Your task to perform on an android device: open chrome and create a bookmark for the current page Image 0: 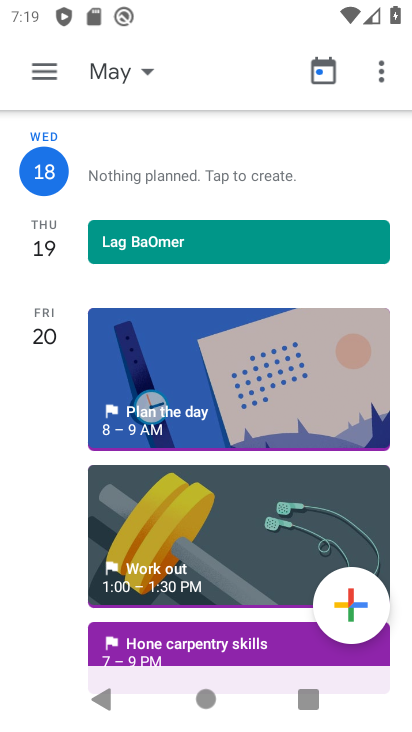
Step 0: press back button
Your task to perform on an android device: open chrome and create a bookmark for the current page Image 1: 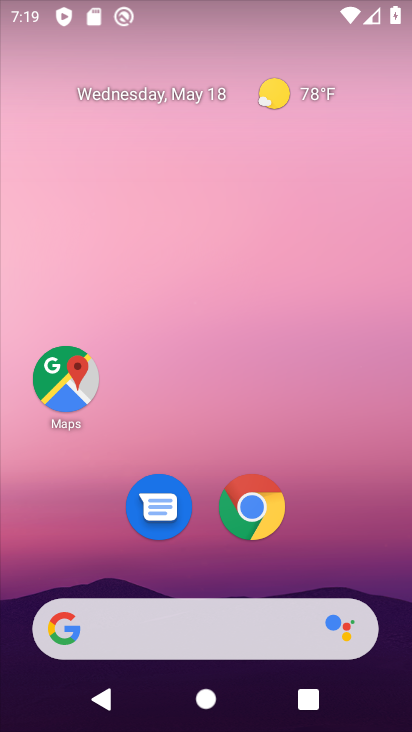
Step 1: drag from (242, 656) to (254, 166)
Your task to perform on an android device: open chrome and create a bookmark for the current page Image 2: 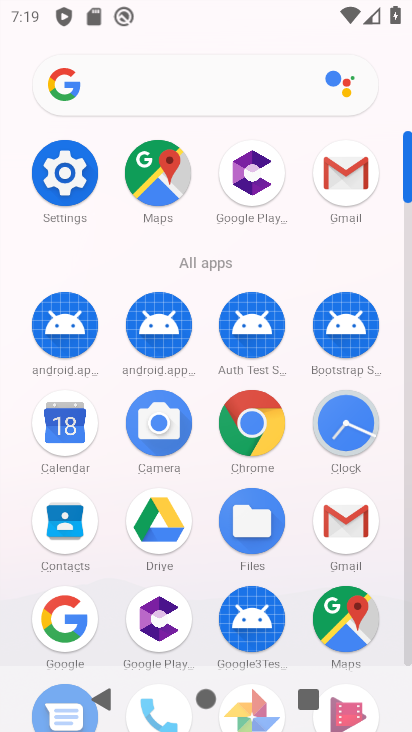
Step 2: click (239, 435)
Your task to perform on an android device: open chrome and create a bookmark for the current page Image 3: 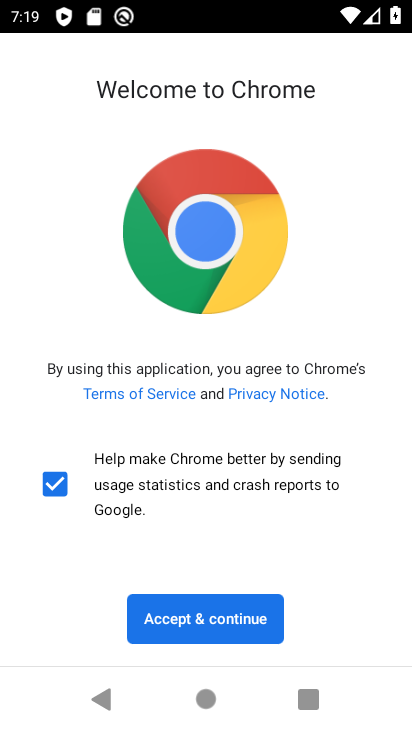
Step 3: click (214, 639)
Your task to perform on an android device: open chrome and create a bookmark for the current page Image 4: 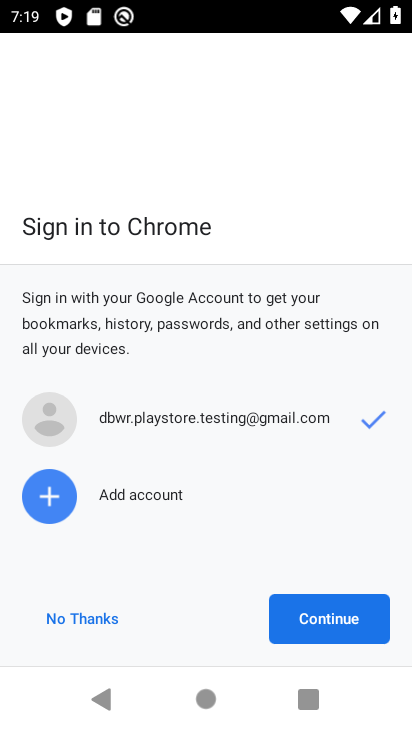
Step 4: click (326, 610)
Your task to perform on an android device: open chrome and create a bookmark for the current page Image 5: 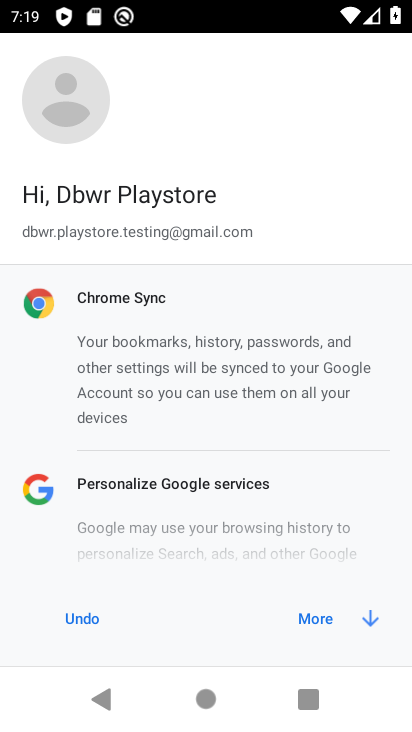
Step 5: click (373, 607)
Your task to perform on an android device: open chrome and create a bookmark for the current page Image 6: 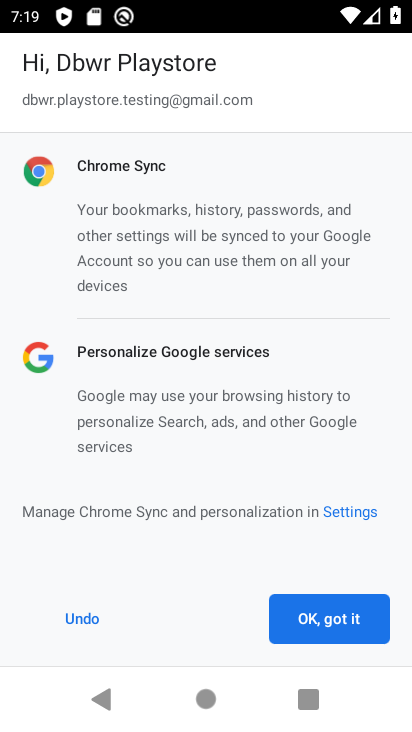
Step 6: click (331, 616)
Your task to perform on an android device: open chrome and create a bookmark for the current page Image 7: 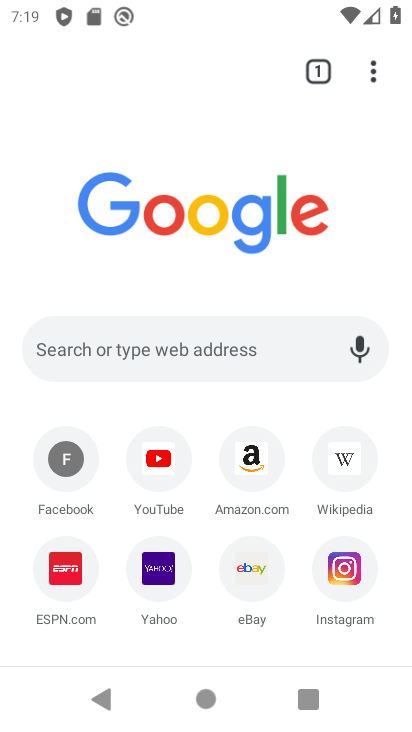
Step 7: click (370, 91)
Your task to perform on an android device: open chrome and create a bookmark for the current page Image 8: 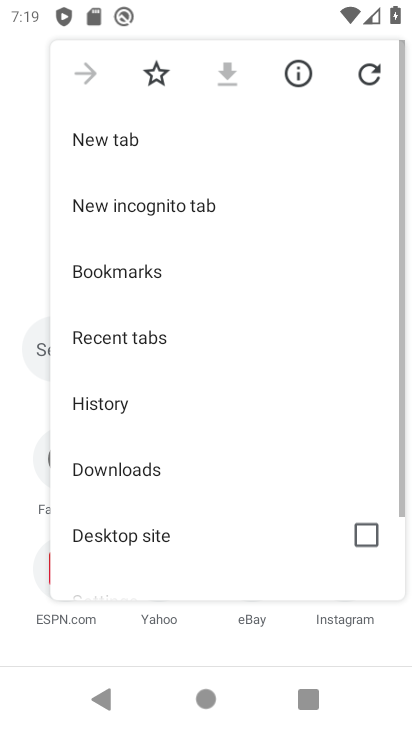
Step 8: click (150, 282)
Your task to perform on an android device: open chrome and create a bookmark for the current page Image 9: 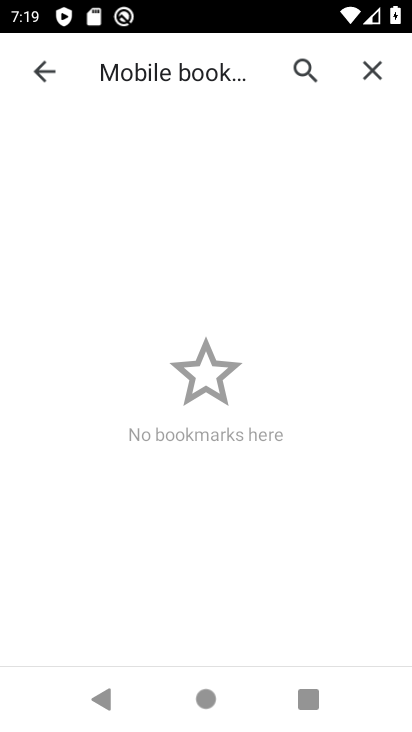
Step 9: task complete